Your task to perform on an android device: Search for sushi restaurants on Maps Image 0: 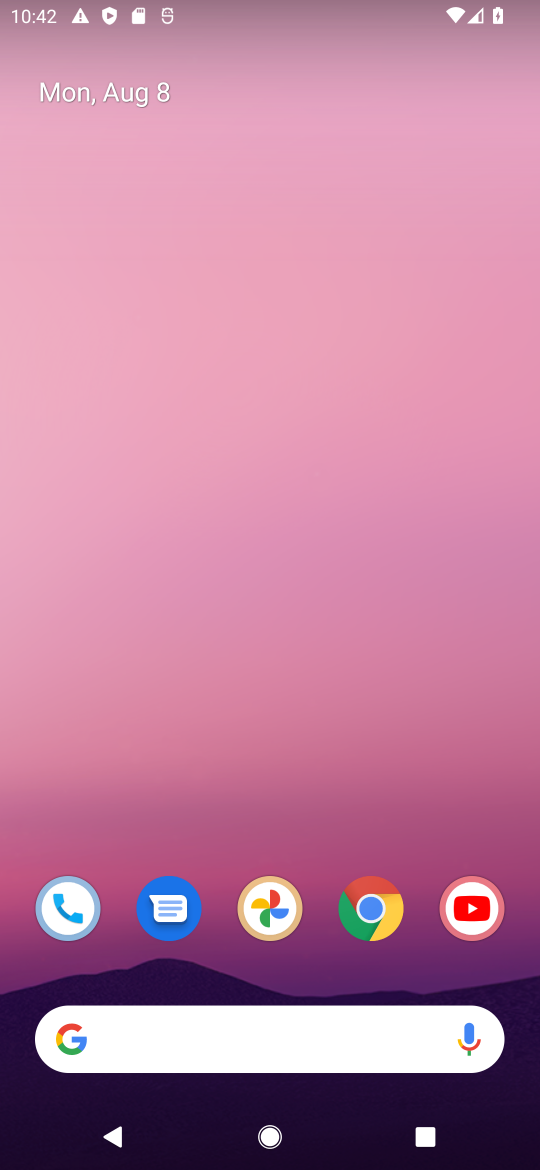
Step 0: press home button
Your task to perform on an android device: Search for sushi restaurants on Maps Image 1: 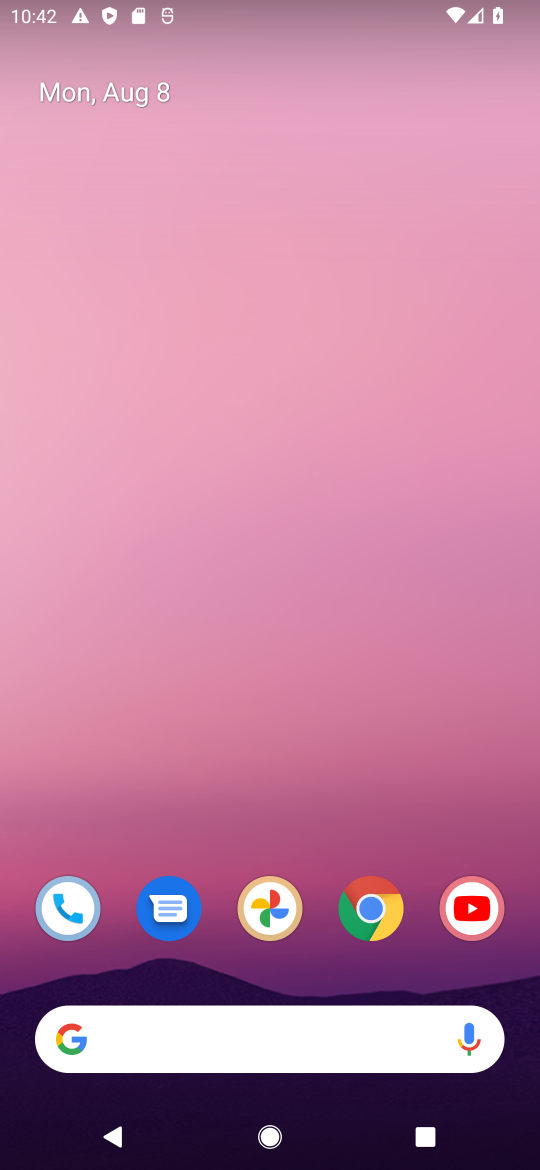
Step 1: drag from (319, 855) to (358, 6)
Your task to perform on an android device: Search for sushi restaurants on Maps Image 2: 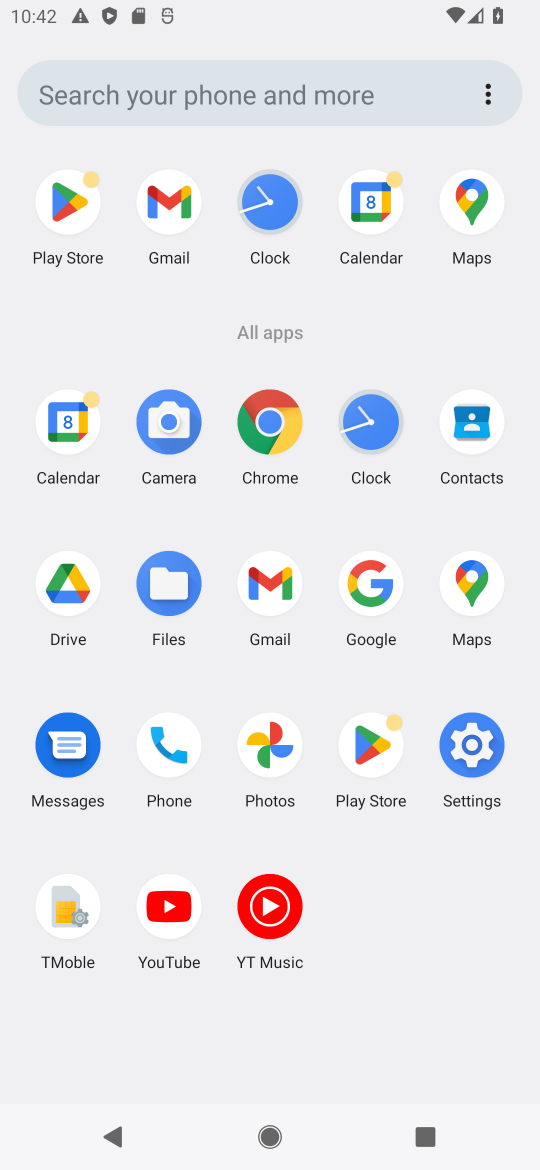
Step 2: click (464, 566)
Your task to perform on an android device: Search for sushi restaurants on Maps Image 3: 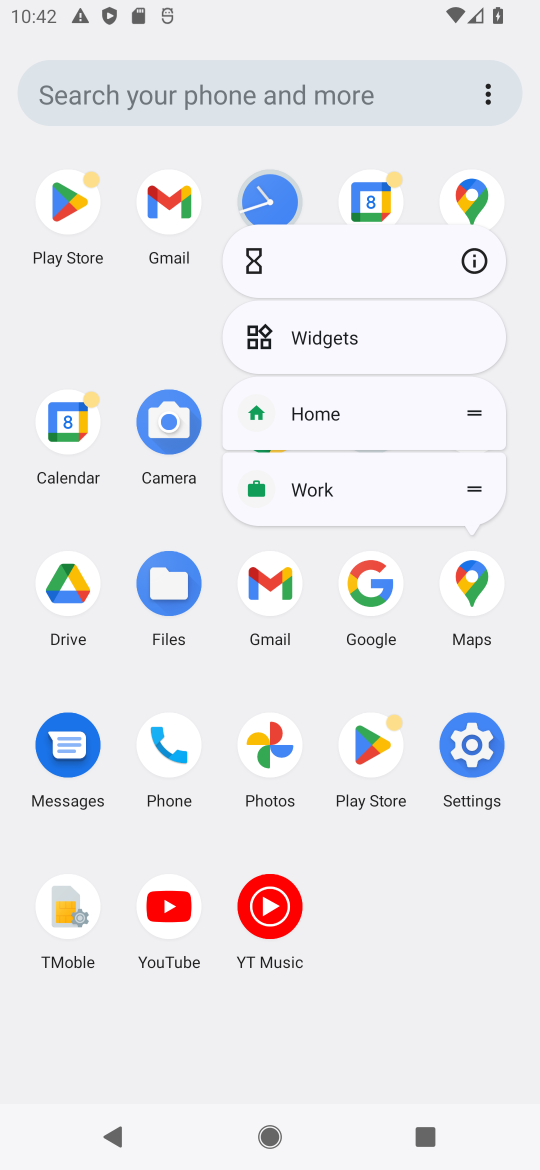
Step 3: click (466, 568)
Your task to perform on an android device: Search for sushi restaurants on Maps Image 4: 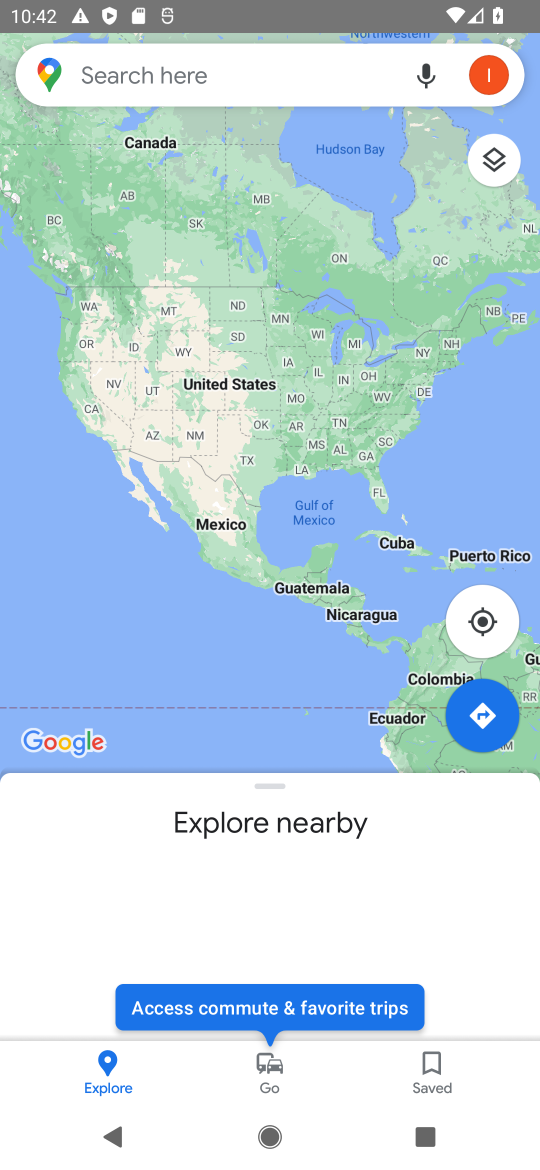
Step 4: click (183, 74)
Your task to perform on an android device: Search for sushi restaurants on Maps Image 5: 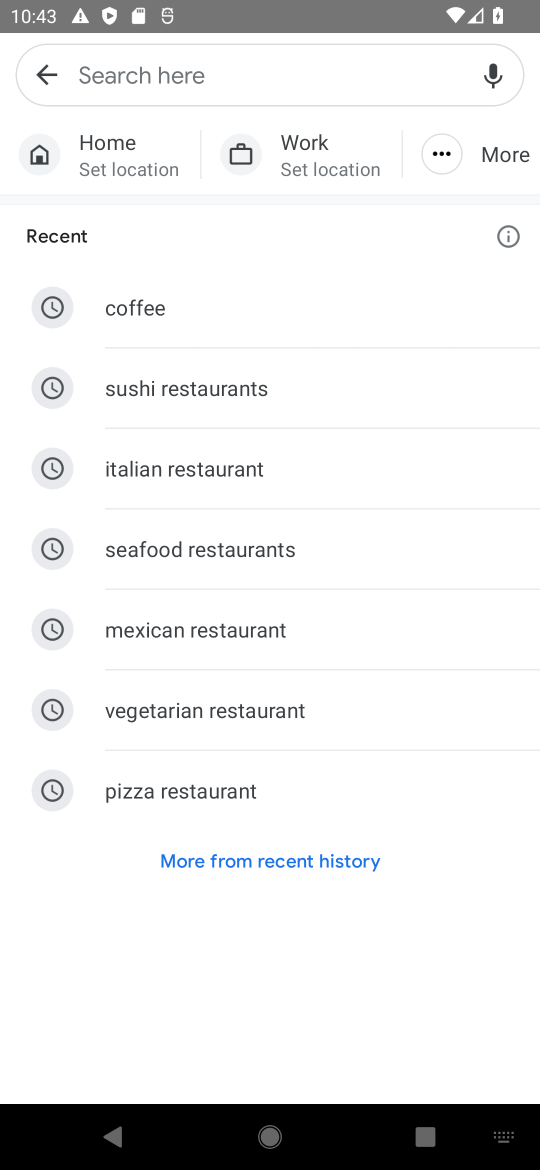
Step 5: click (202, 399)
Your task to perform on an android device: Search for sushi restaurants on Maps Image 6: 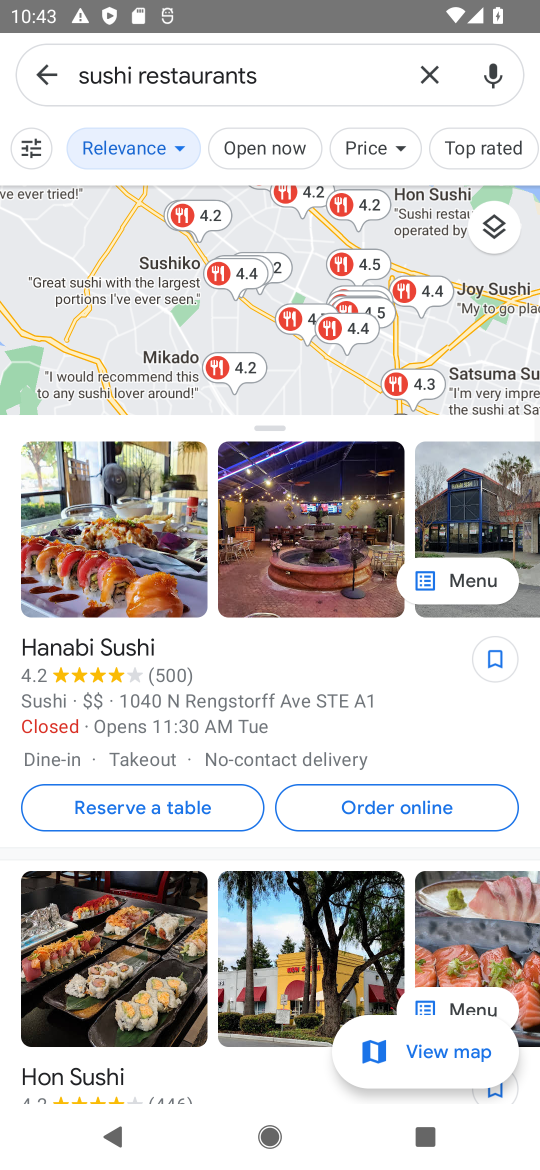
Step 6: task complete